Your task to perform on an android device: open the mobile data screen to see how much data has been used Image 0: 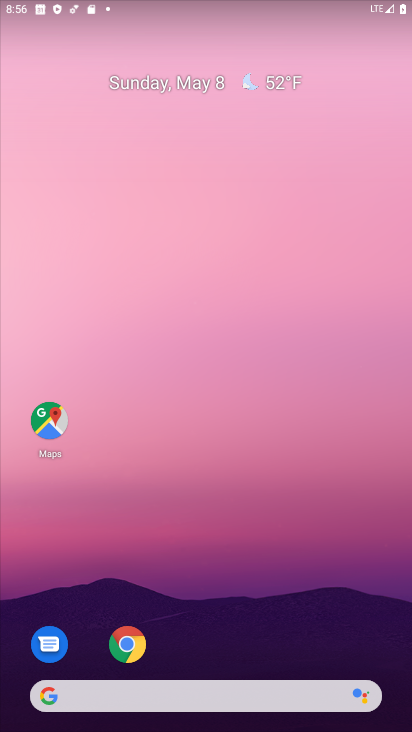
Step 0: drag from (207, 635) to (228, 132)
Your task to perform on an android device: open the mobile data screen to see how much data has been used Image 1: 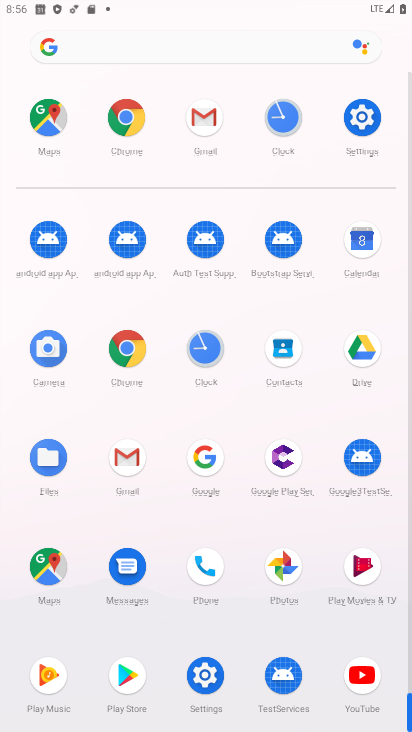
Step 1: click (360, 108)
Your task to perform on an android device: open the mobile data screen to see how much data has been used Image 2: 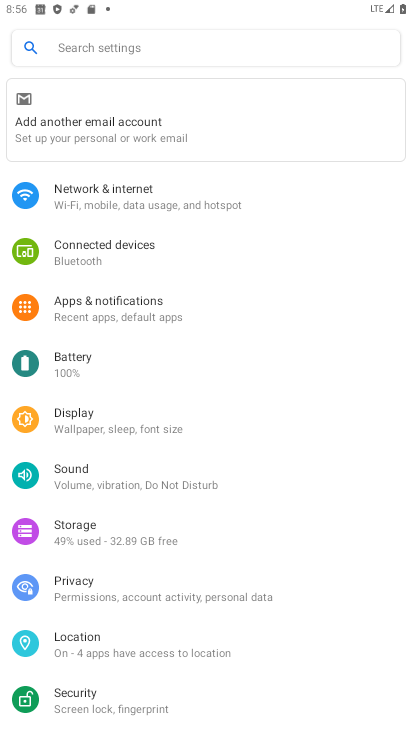
Step 2: drag from (154, 424) to (236, 162)
Your task to perform on an android device: open the mobile data screen to see how much data has been used Image 3: 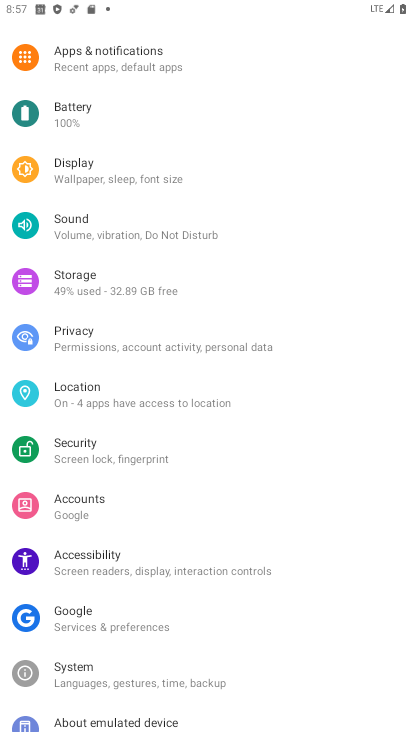
Step 3: drag from (187, 151) to (201, 515)
Your task to perform on an android device: open the mobile data screen to see how much data has been used Image 4: 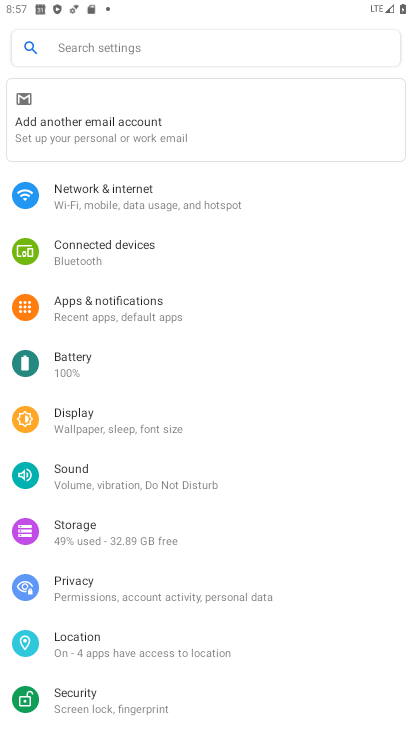
Step 4: click (177, 201)
Your task to perform on an android device: open the mobile data screen to see how much data has been used Image 5: 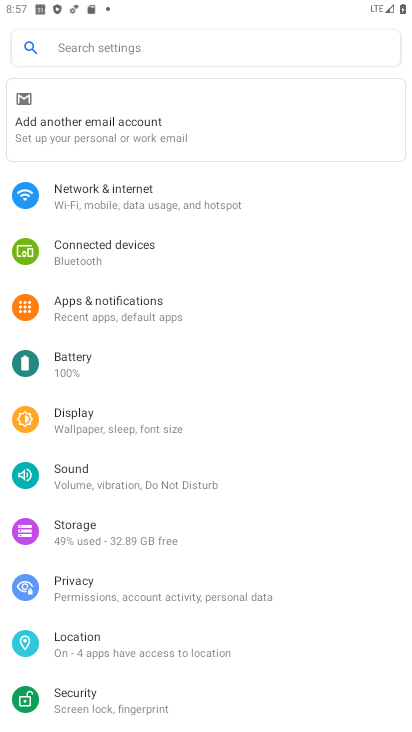
Step 5: click (177, 201)
Your task to perform on an android device: open the mobile data screen to see how much data has been used Image 6: 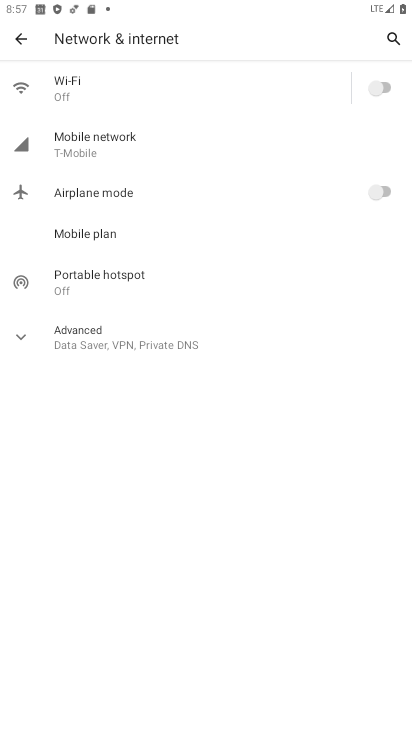
Step 6: click (184, 137)
Your task to perform on an android device: open the mobile data screen to see how much data has been used Image 7: 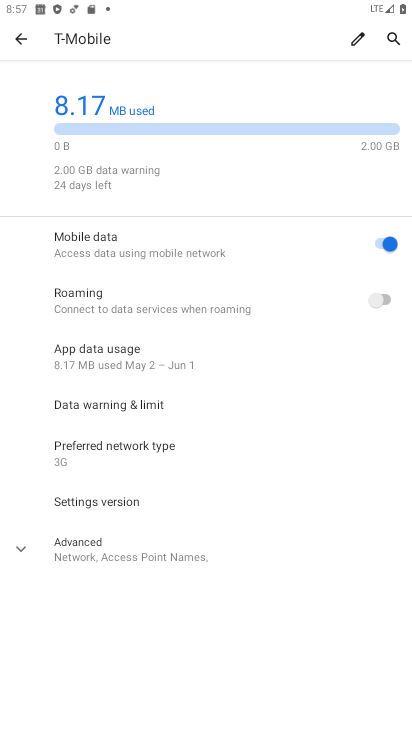
Step 7: task complete